Your task to perform on an android device: Open calendar and show me the first week of next month Image 0: 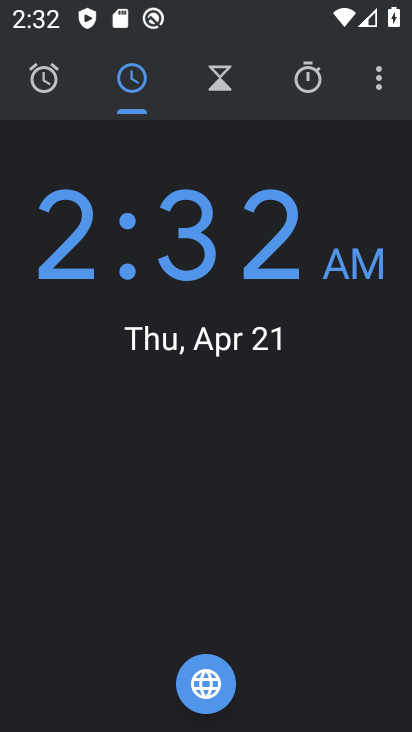
Step 0: press back button
Your task to perform on an android device: Open calendar and show me the first week of next month Image 1: 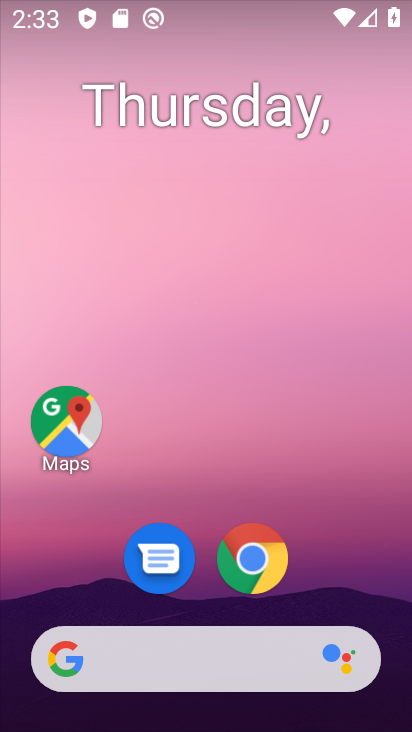
Step 1: drag from (245, 394) to (318, 99)
Your task to perform on an android device: Open calendar and show me the first week of next month Image 2: 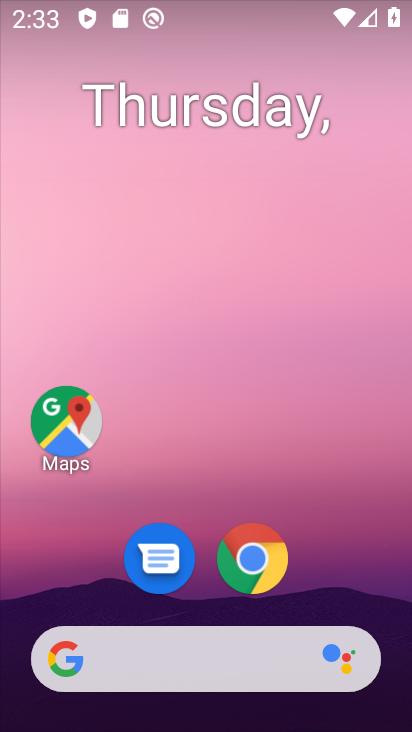
Step 2: drag from (267, 349) to (356, 21)
Your task to perform on an android device: Open calendar and show me the first week of next month Image 3: 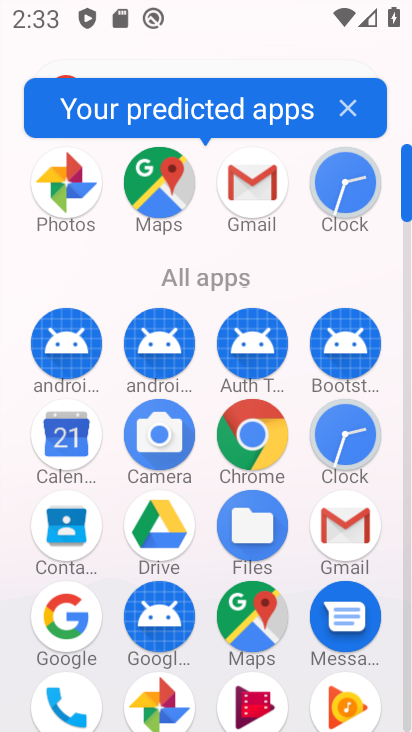
Step 3: click (57, 452)
Your task to perform on an android device: Open calendar and show me the first week of next month Image 4: 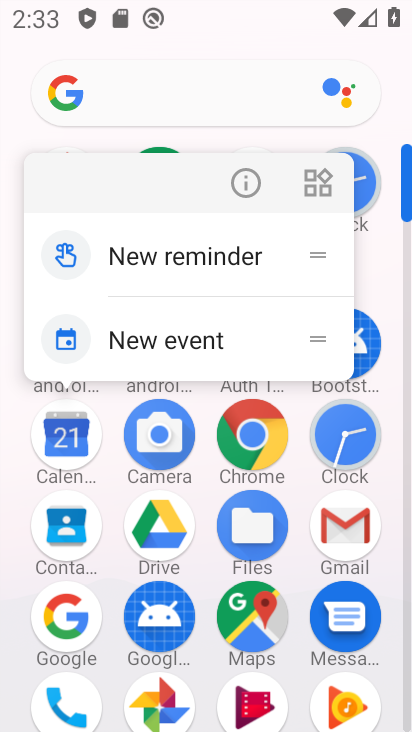
Step 4: click (65, 444)
Your task to perform on an android device: Open calendar and show me the first week of next month Image 5: 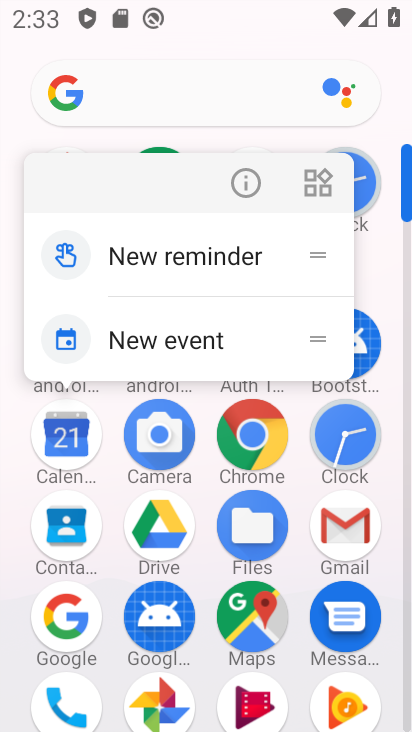
Step 5: click (67, 442)
Your task to perform on an android device: Open calendar and show me the first week of next month Image 6: 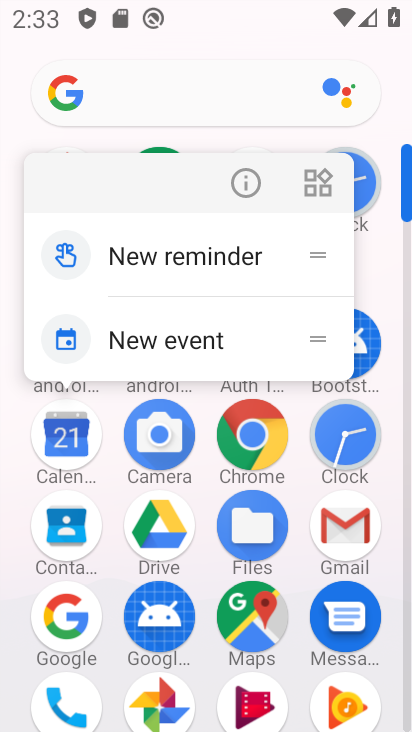
Step 6: click (71, 444)
Your task to perform on an android device: Open calendar and show me the first week of next month Image 7: 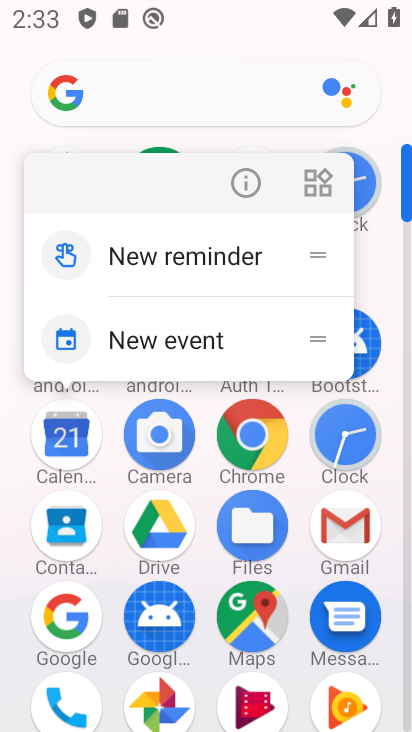
Step 7: click (72, 443)
Your task to perform on an android device: Open calendar and show me the first week of next month Image 8: 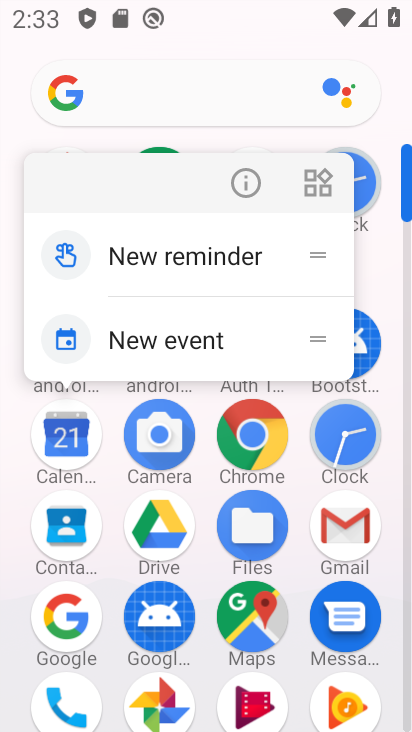
Step 8: click (76, 454)
Your task to perform on an android device: Open calendar and show me the first week of next month Image 9: 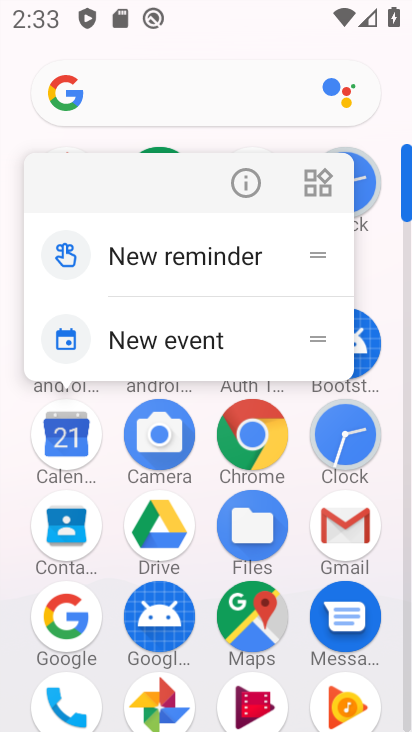
Step 9: click (71, 457)
Your task to perform on an android device: Open calendar and show me the first week of next month Image 10: 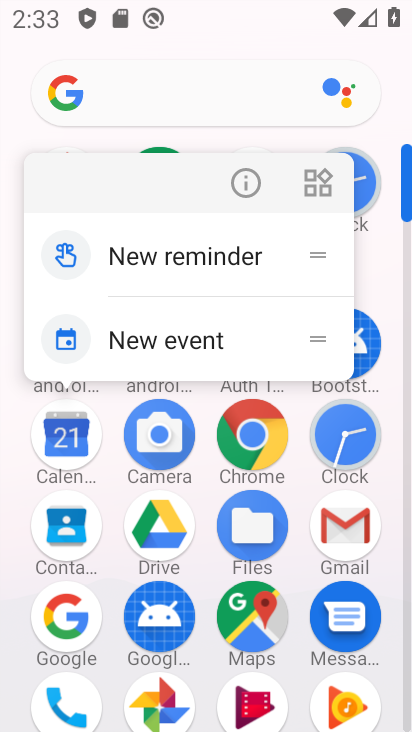
Step 10: click (71, 456)
Your task to perform on an android device: Open calendar and show me the first week of next month Image 11: 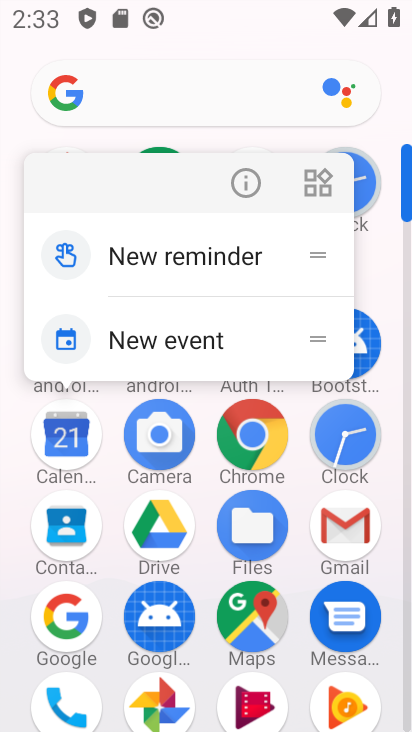
Step 11: click (72, 452)
Your task to perform on an android device: Open calendar and show me the first week of next month Image 12: 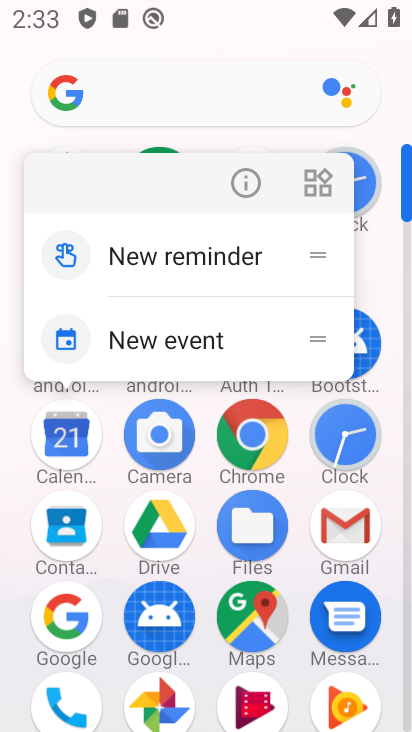
Step 12: click (72, 452)
Your task to perform on an android device: Open calendar and show me the first week of next month Image 13: 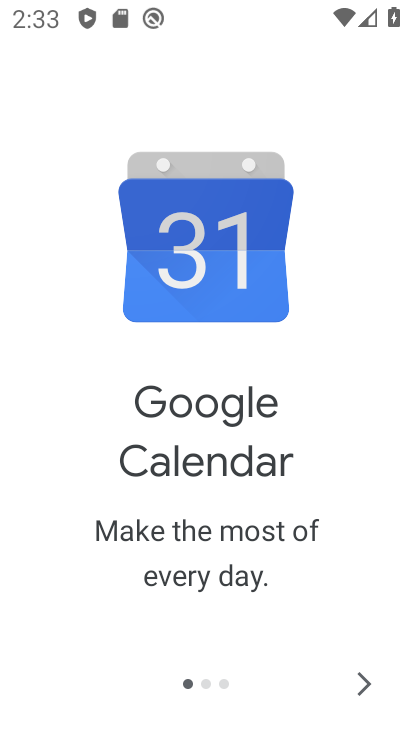
Step 13: click (365, 687)
Your task to perform on an android device: Open calendar and show me the first week of next month Image 14: 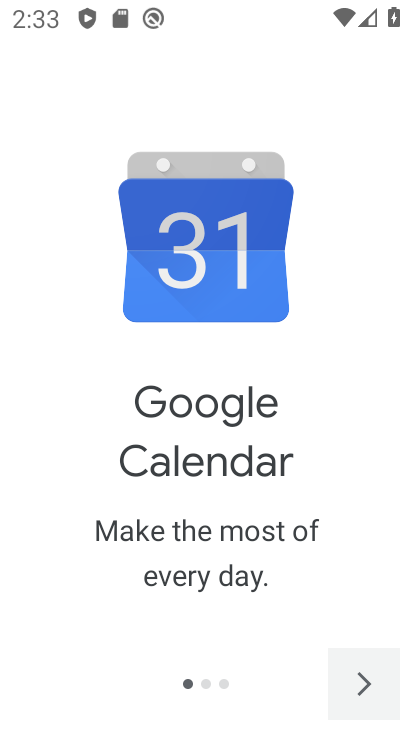
Step 14: click (365, 687)
Your task to perform on an android device: Open calendar and show me the first week of next month Image 15: 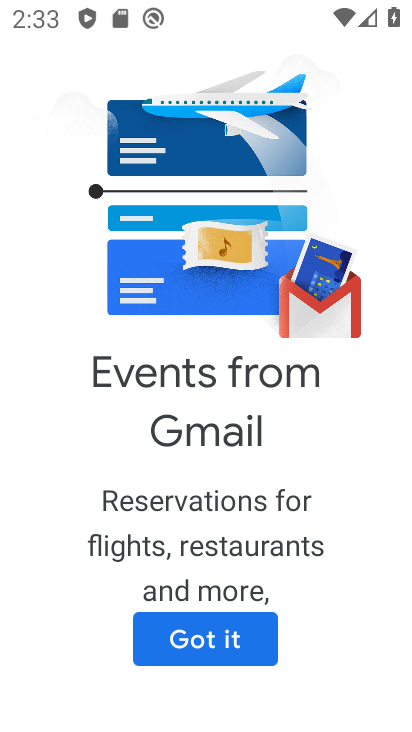
Step 15: click (158, 623)
Your task to perform on an android device: Open calendar and show me the first week of next month Image 16: 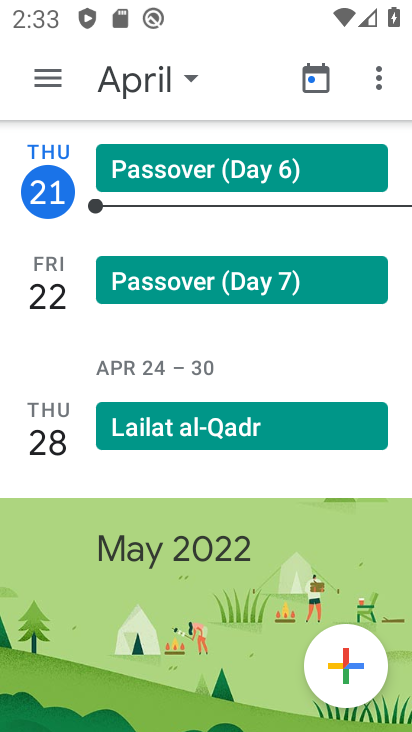
Step 16: click (58, 78)
Your task to perform on an android device: Open calendar and show me the first week of next month Image 17: 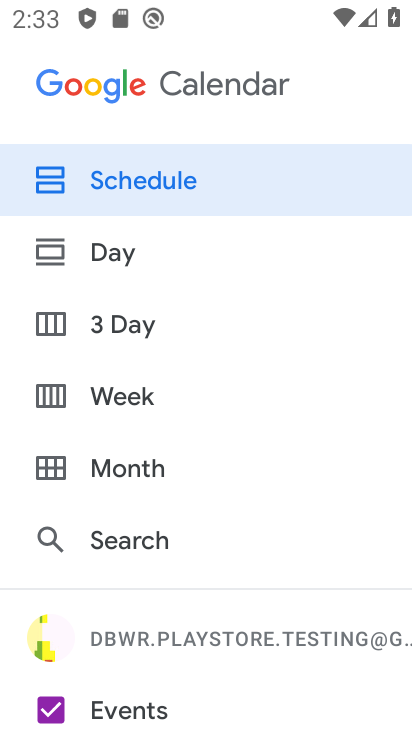
Step 17: click (140, 403)
Your task to perform on an android device: Open calendar and show me the first week of next month Image 18: 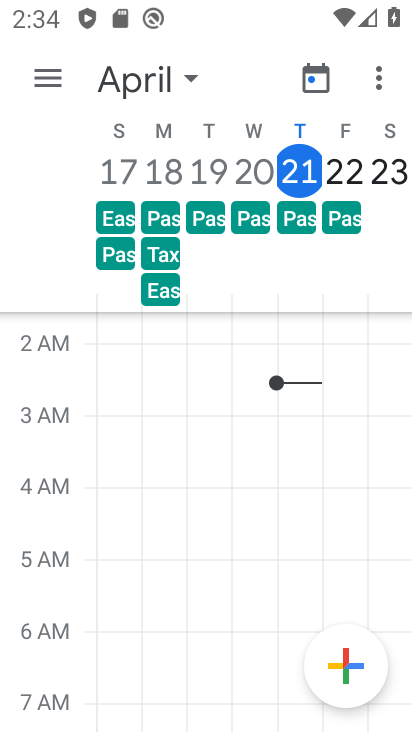
Step 18: click (158, 78)
Your task to perform on an android device: Open calendar and show me the first week of next month Image 19: 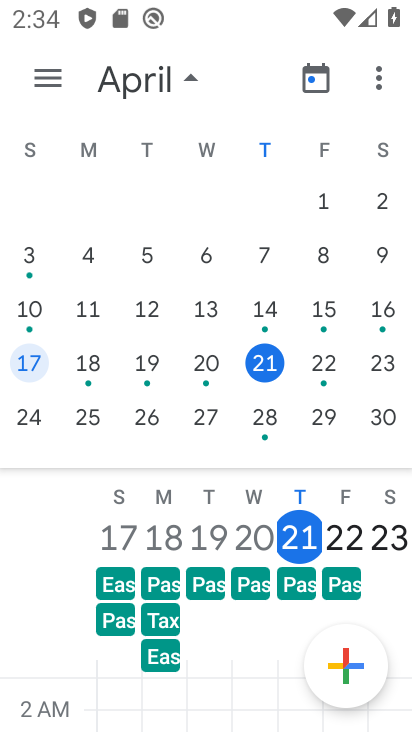
Step 19: drag from (321, 260) to (42, 245)
Your task to perform on an android device: Open calendar and show me the first week of next month Image 20: 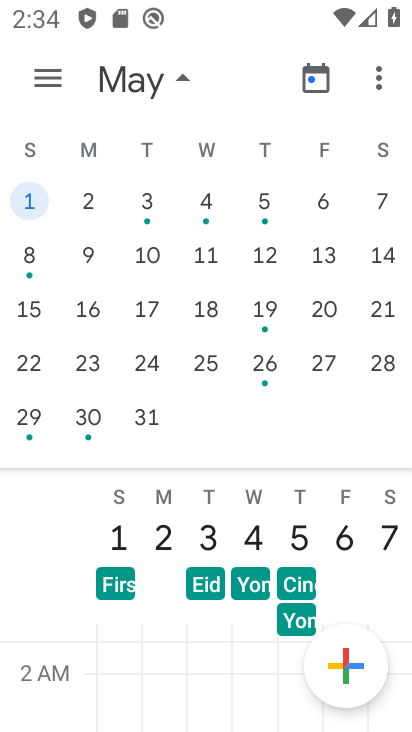
Step 20: click (36, 205)
Your task to perform on an android device: Open calendar and show me the first week of next month Image 21: 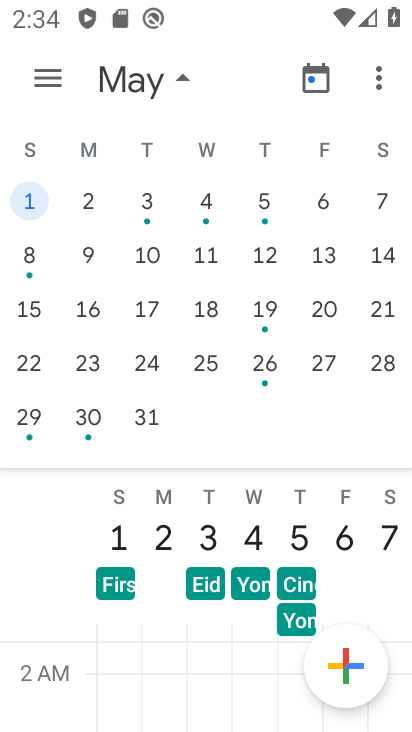
Step 21: click (187, 82)
Your task to perform on an android device: Open calendar and show me the first week of next month Image 22: 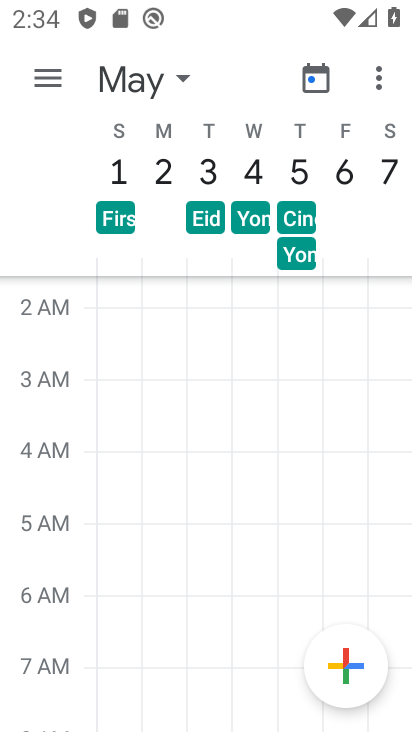
Step 22: task complete